Your task to perform on an android device: see sites visited before in the chrome app Image 0: 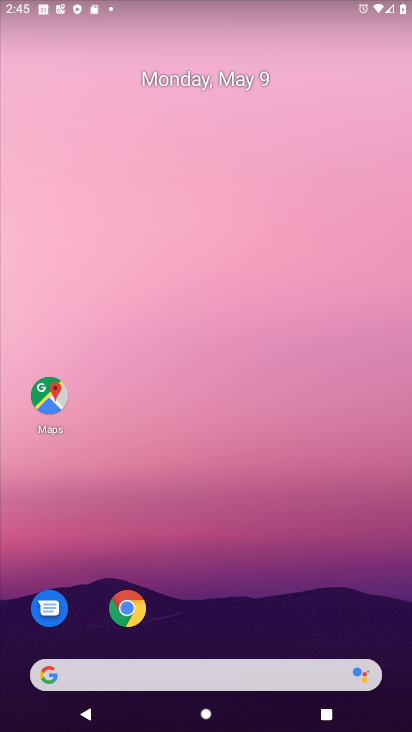
Step 0: click (130, 598)
Your task to perform on an android device: see sites visited before in the chrome app Image 1: 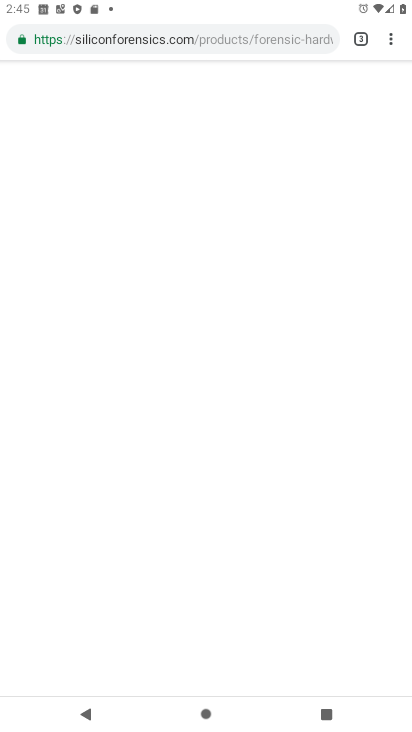
Step 1: click (389, 41)
Your task to perform on an android device: see sites visited before in the chrome app Image 2: 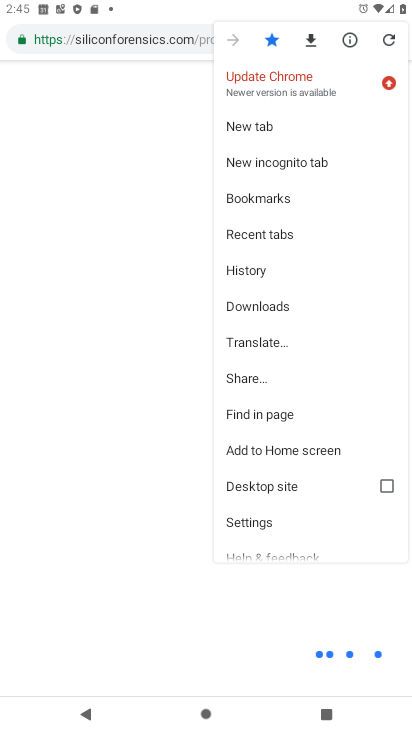
Step 2: click (280, 263)
Your task to perform on an android device: see sites visited before in the chrome app Image 3: 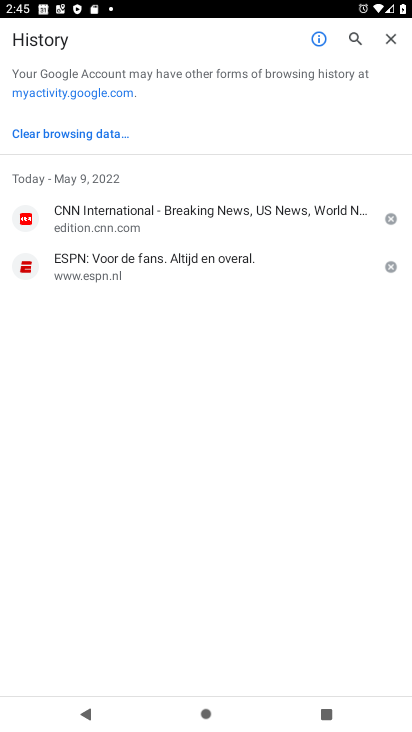
Step 3: task complete